Your task to perform on an android device: check storage Image 0: 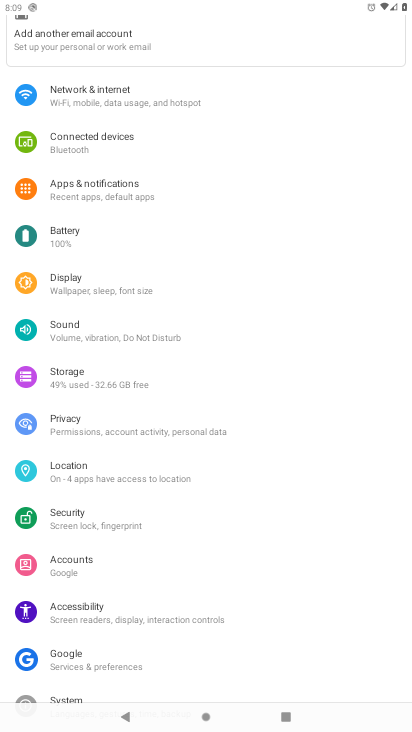
Step 0: click (101, 368)
Your task to perform on an android device: check storage Image 1: 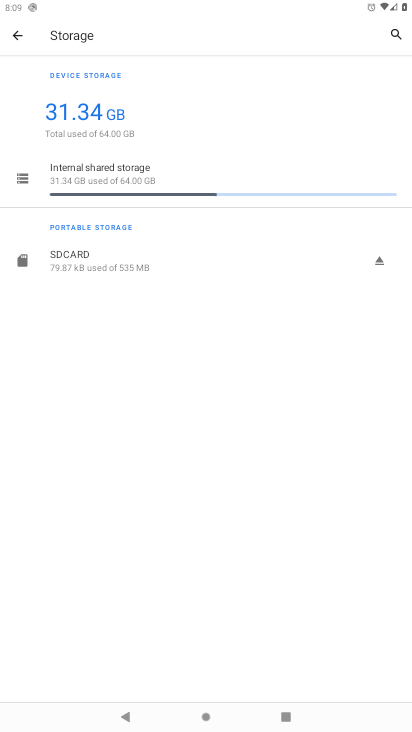
Step 1: task complete